Your task to perform on an android device: turn on bluetooth scan Image 0: 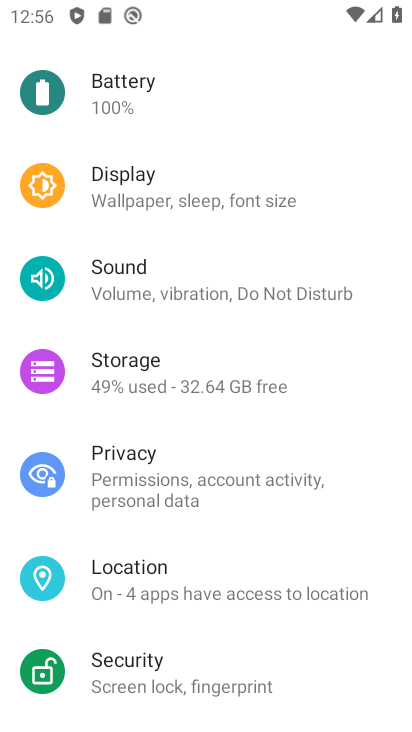
Step 0: click (213, 581)
Your task to perform on an android device: turn on bluetooth scan Image 1: 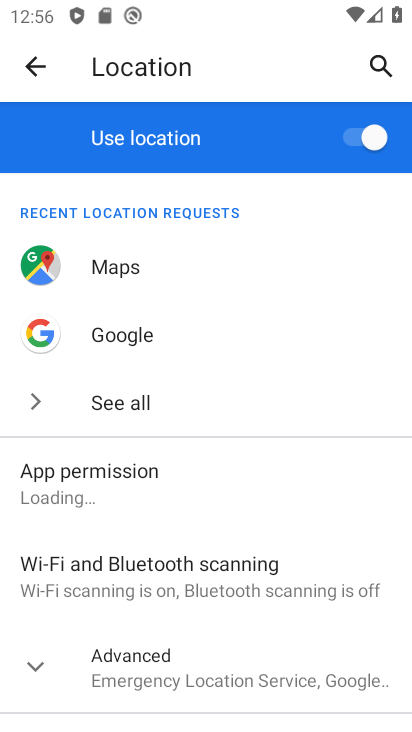
Step 1: drag from (244, 494) to (239, 267)
Your task to perform on an android device: turn on bluetooth scan Image 2: 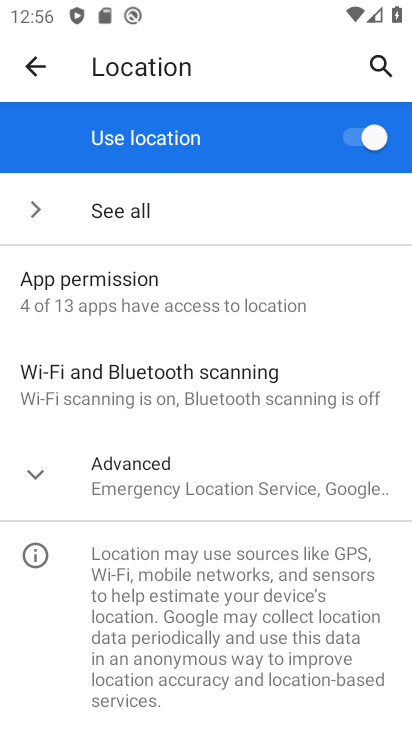
Step 2: click (125, 383)
Your task to perform on an android device: turn on bluetooth scan Image 3: 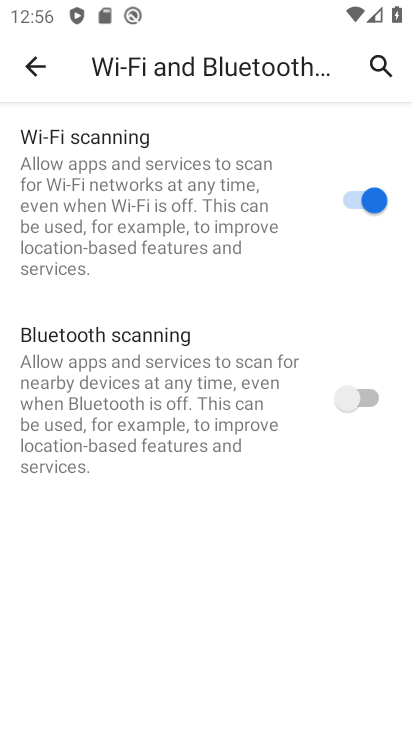
Step 3: click (367, 395)
Your task to perform on an android device: turn on bluetooth scan Image 4: 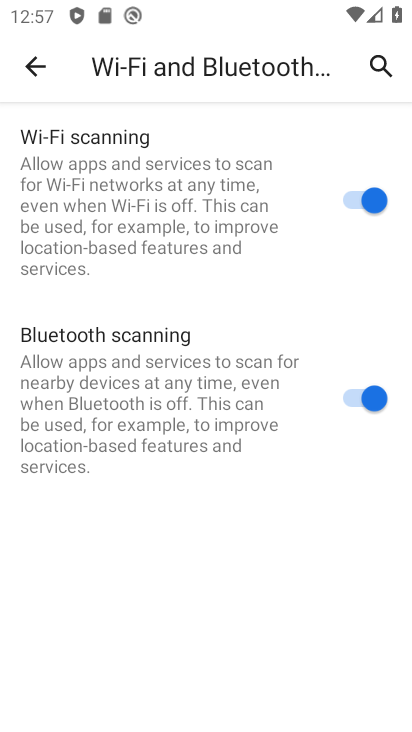
Step 4: task complete